Your task to perform on an android device: change notification settings in the gmail app Image 0: 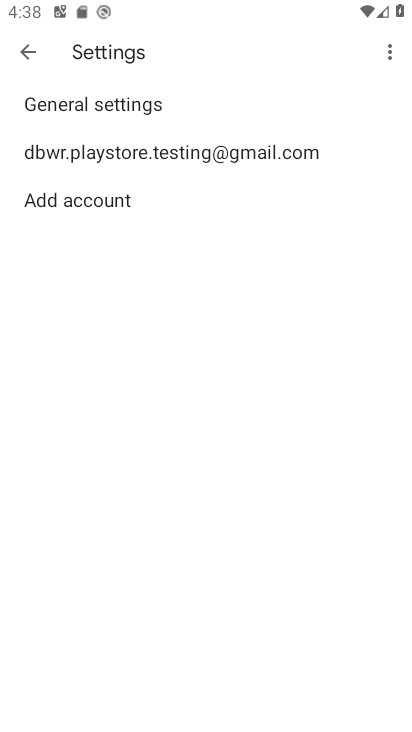
Step 0: press home button
Your task to perform on an android device: change notification settings in the gmail app Image 1: 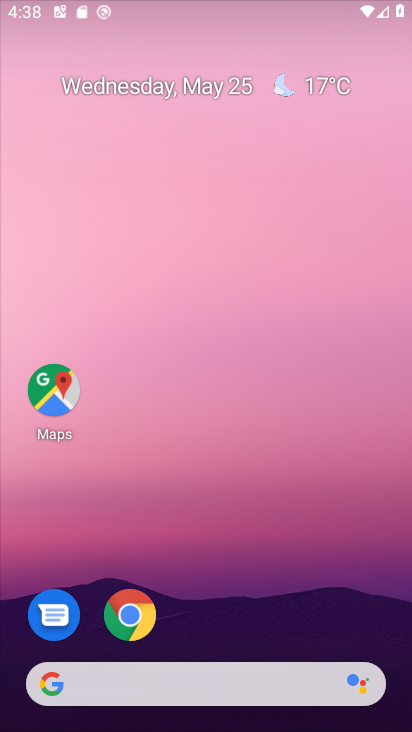
Step 1: drag from (301, 574) to (221, 100)
Your task to perform on an android device: change notification settings in the gmail app Image 2: 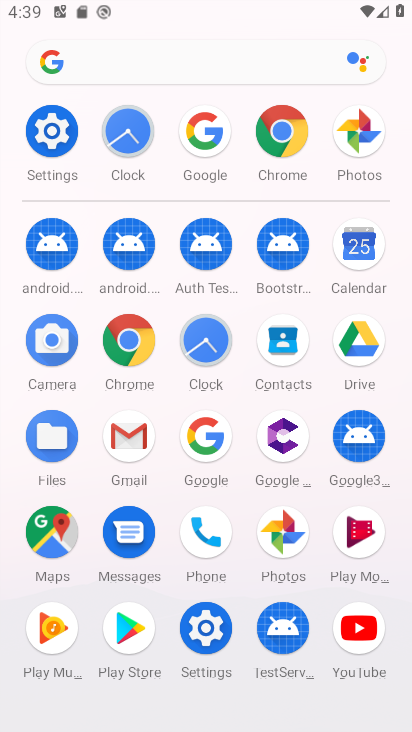
Step 2: click (132, 438)
Your task to perform on an android device: change notification settings in the gmail app Image 3: 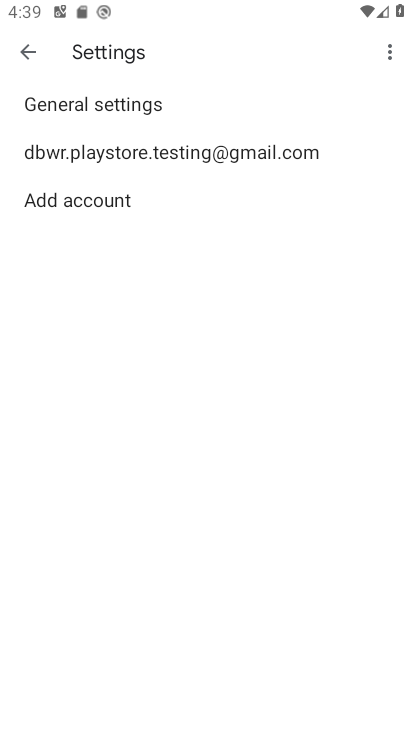
Step 3: click (58, 139)
Your task to perform on an android device: change notification settings in the gmail app Image 4: 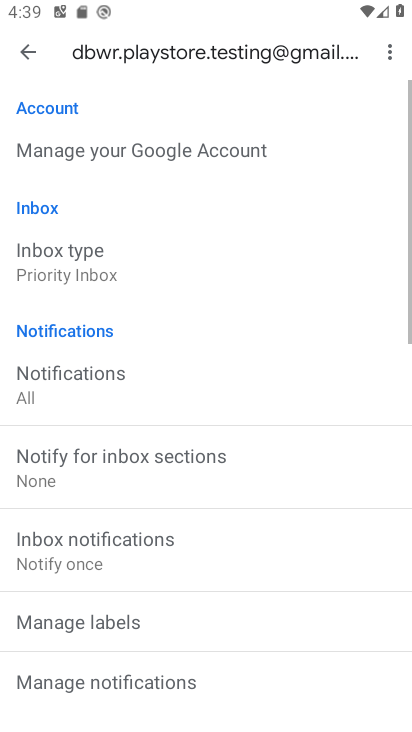
Step 4: click (203, 398)
Your task to perform on an android device: change notification settings in the gmail app Image 5: 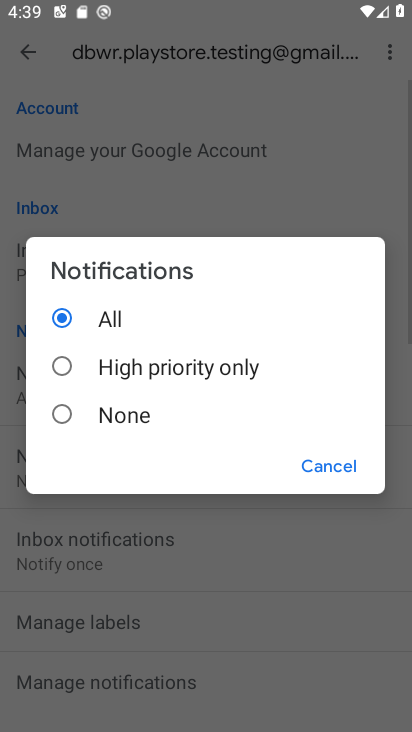
Step 5: click (106, 419)
Your task to perform on an android device: change notification settings in the gmail app Image 6: 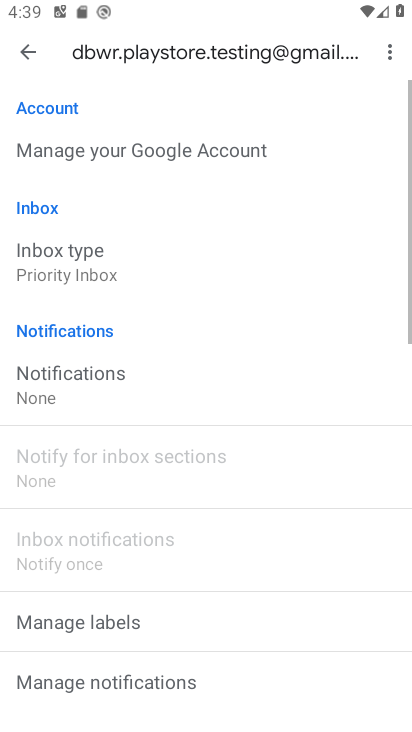
Step 6: task complete